Your task to perform on an android device: Open Youtube and go to the subscriptions tab Image 0: 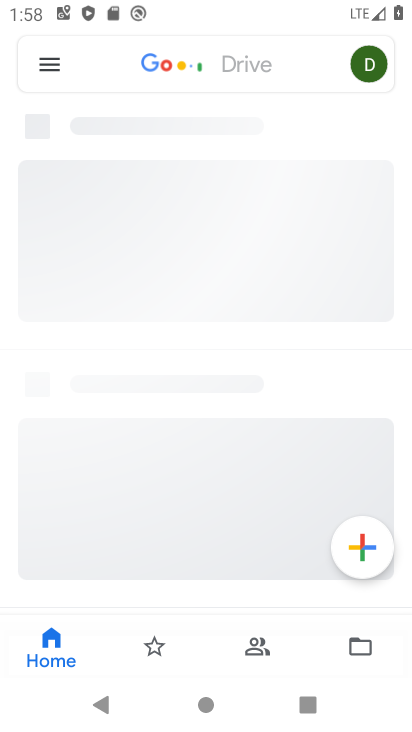
Step 0: drag from (232, 660) to (255, 137)
Your task to perform on an android device: Open Youtube and go to the subscriptions tab Image 1: 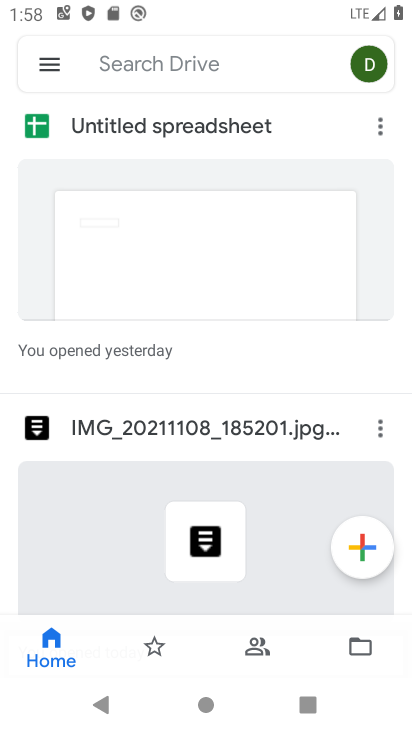
Step 1: press home button
Your task to perform on an android device: Open Youtube and go to the subscriptions tab Image 2: 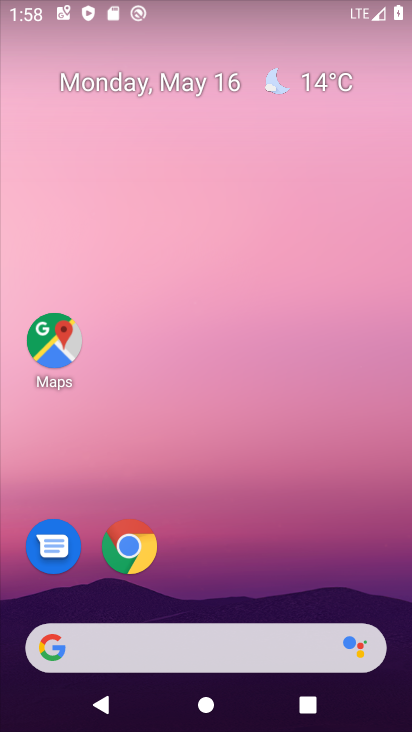
Step 2: drag from (225, 674) to (199, 124)
Your task to perform on an android device: Open Youtube and go to the subscriptions tab Image 3: 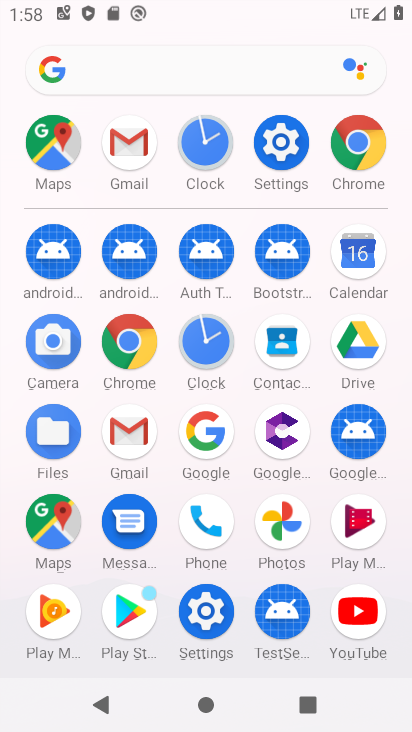
Step 3: click (357, 607)
Your task to perform on an android device: Open Youtube and go to the subscriptions tab Image 4: 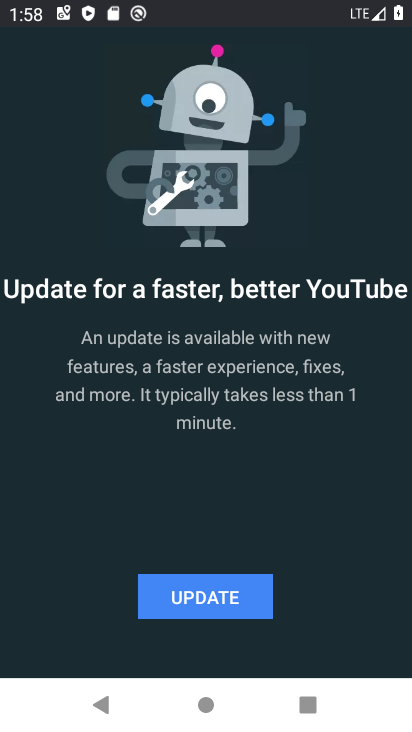
Step 4: click (231, 591)
Your task to perform on an android device: Open Youtube and go to the subscriptions tab Image 5: 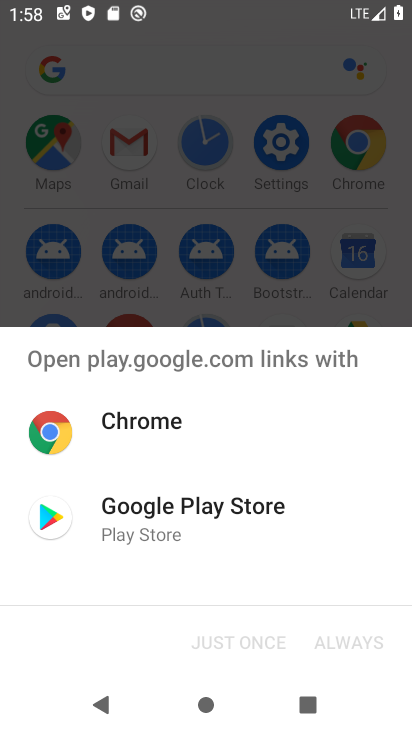
Step 5: click (153, 535)
Your task to perform on an android device: Open Youtube and go to the subscriptions tab Image 6: 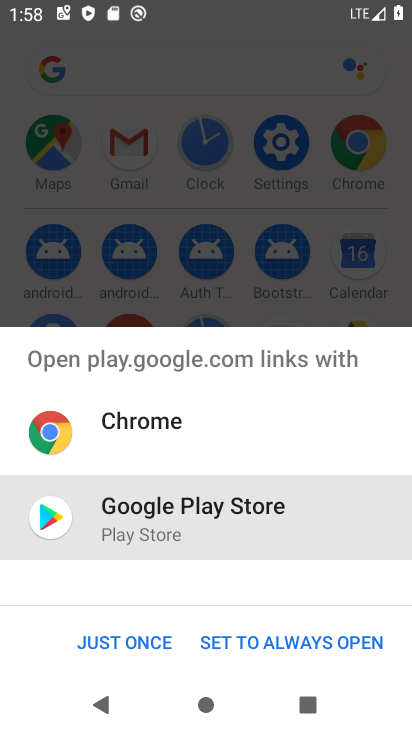
Step 6: click (247, 641)
Your task to perform on an android device: Open Youtube and go to the subscriptions tab Image 7: 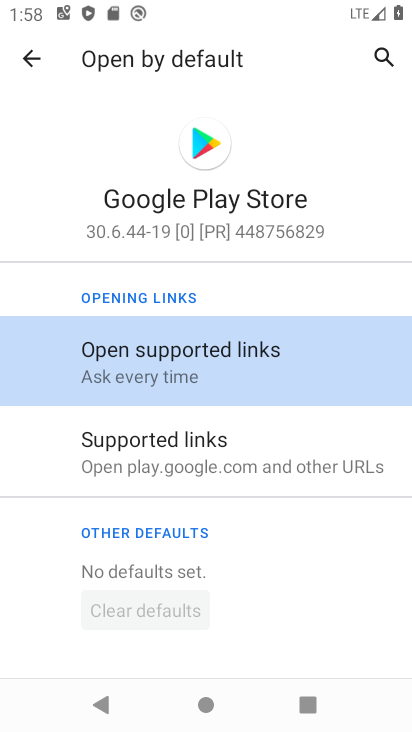
Step 7: press back button
Your task to perform on an android device: Open Youtube and go to the subscriptions tab Image 8: 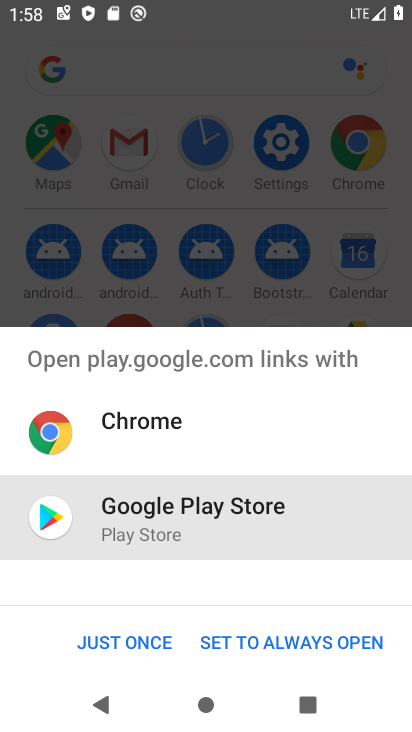
Step 8: click (95, 645)
Your task to perform on an android device: Open Youtube and go to the subscriptions tab Image 9: 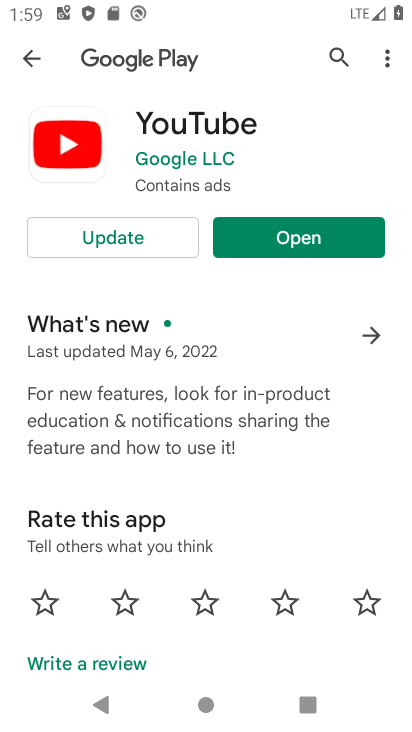
Step 9: click (128, 239)
Your task to perform on an android device: Open Youtube and go to the subscriptions tab Image 10: 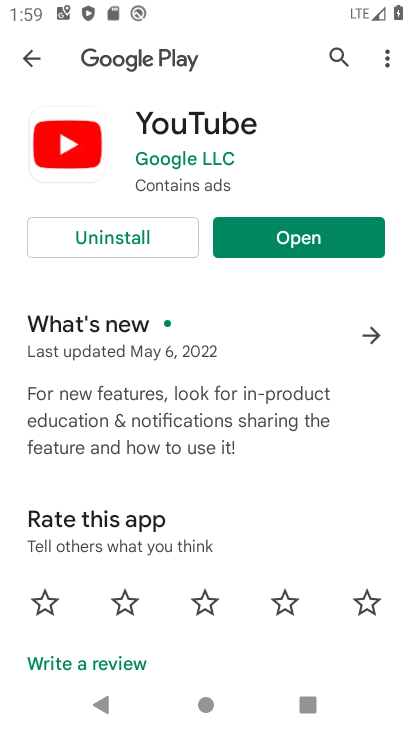
Step 10: click (263, 227)
Your task to perform on an android device: Open Youtube and go to the subscriptions tab Image 11: 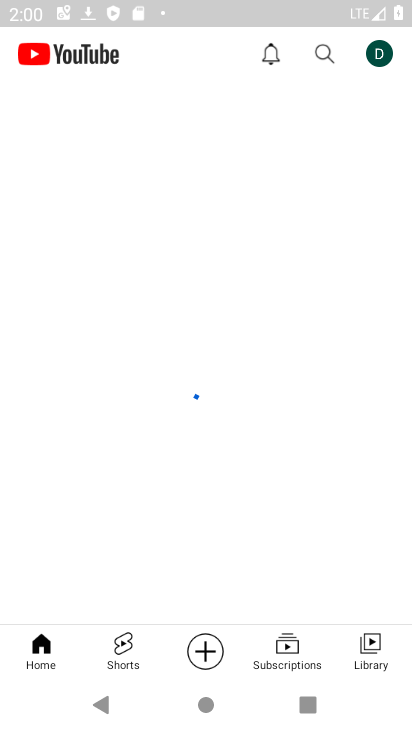
Step 11: click (287, 648)
Your task to perform on an android device: Open Youtube and go to the subscriptions tab Image 12: 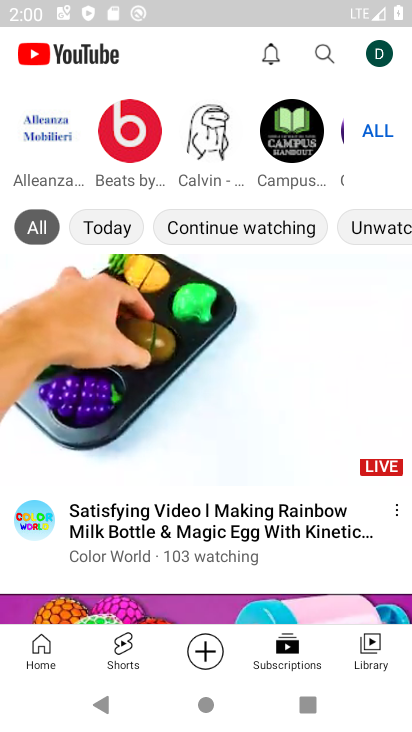
Step 12: click (288, 653)
Your task to perform on an android device: Open Youtube and go to the subscriptions tab Image 13: 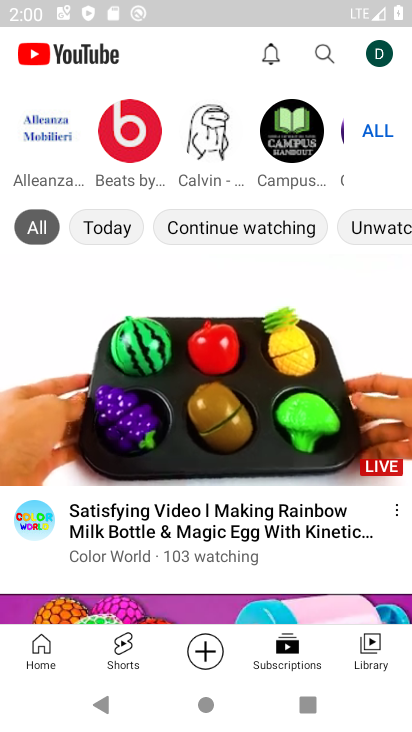
Step 13: task complete